Your task to perform on an android device: check android version Image 0: 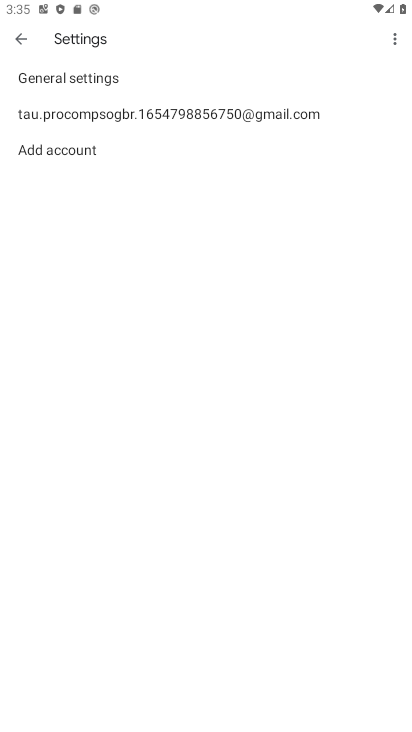
Step 0: press home button
Your task to perform on an android device: check android version Image 1: 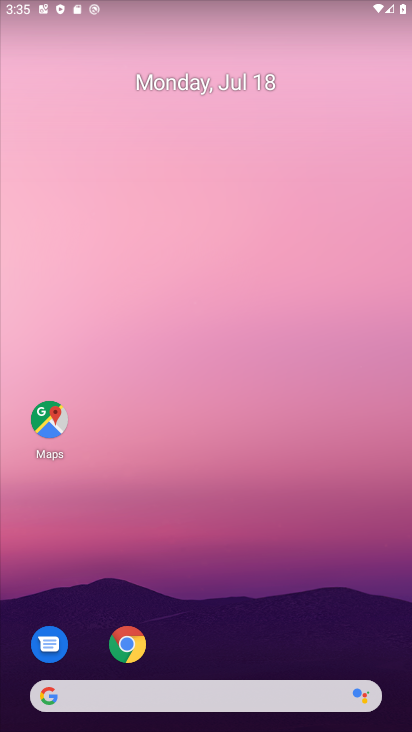
Step 1: drag from (334, 622) to (331, 252)
Your task to perform on an android device: check android version Image 2: 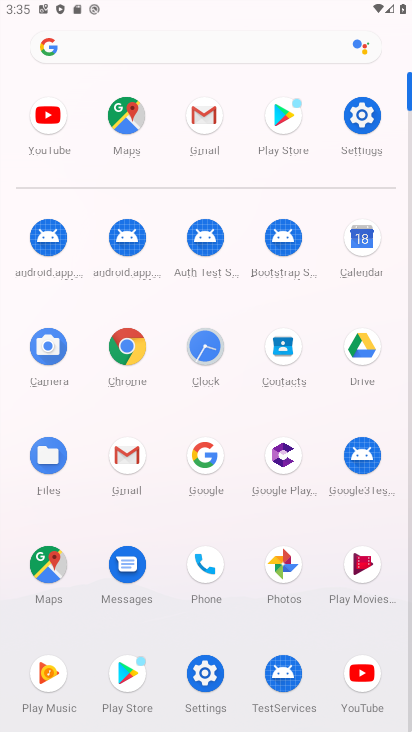
Step 2: click (207, 681)
Your task to perform on an android device: check android version Image 3: 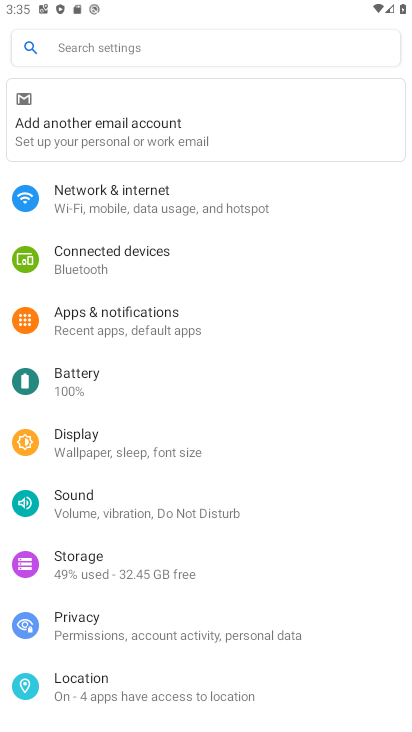
Step 3: drag from (333, 673) to (364, 229)
Your task to perform on an android device: check android version Image 4: 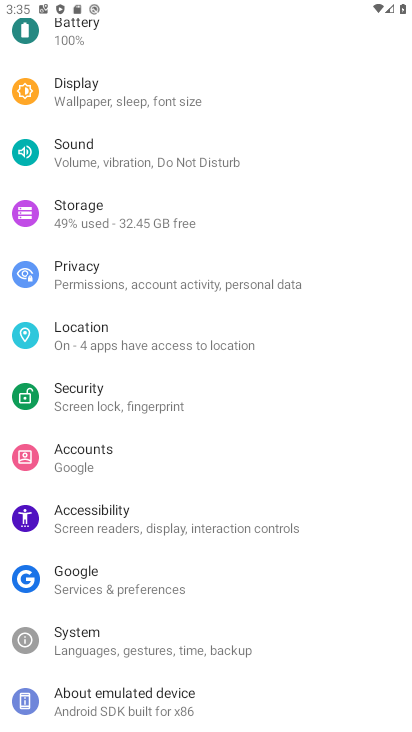
Step 4: click (126, 693)
Your task to perform on an android device: check android version Image 5: 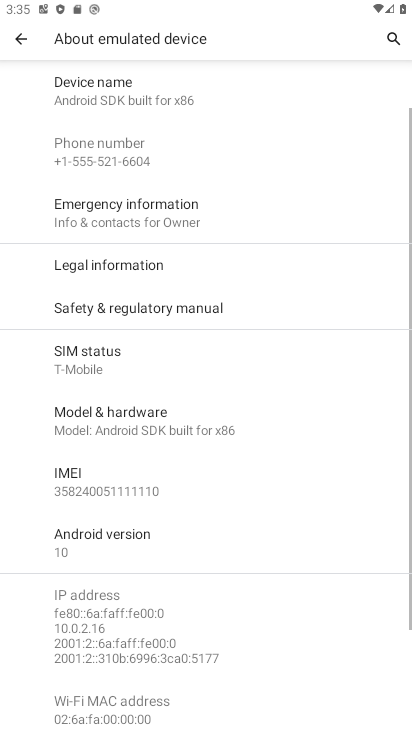
Step 5: click (98, 542)
Your task to perform on an android device: check android version Image 6: 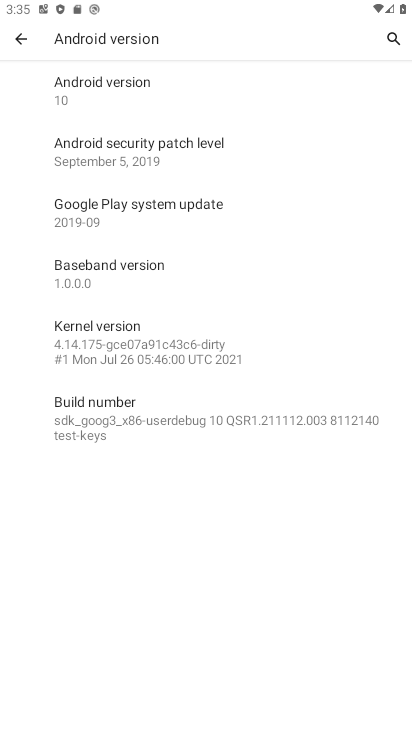
Step 6: task complete